Your task to perform on an android device: turn off priority inbox in the gmail app Image 0: 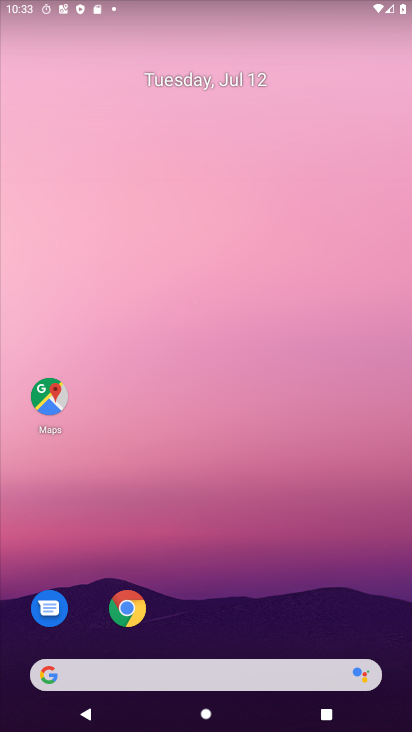
Step 0: drag from (223, 599) to (223, 151)
Your task to perform on an android device: turn off priority inbox in the gmail app Image 1: 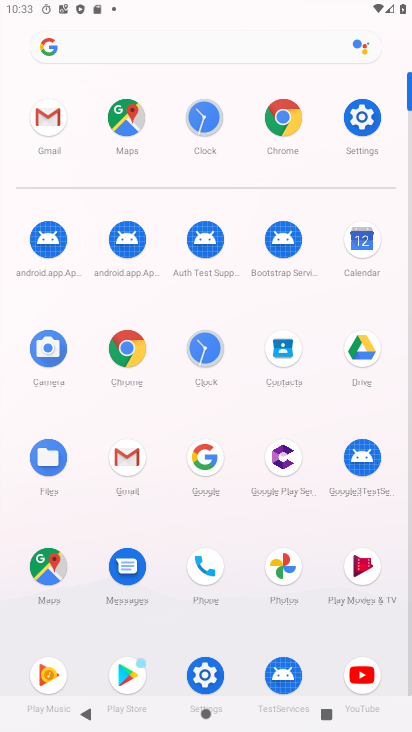
Step 1: click (127, 465)
Your task to perform on an android device: turn off priority inbox in the gmail app Image 2: 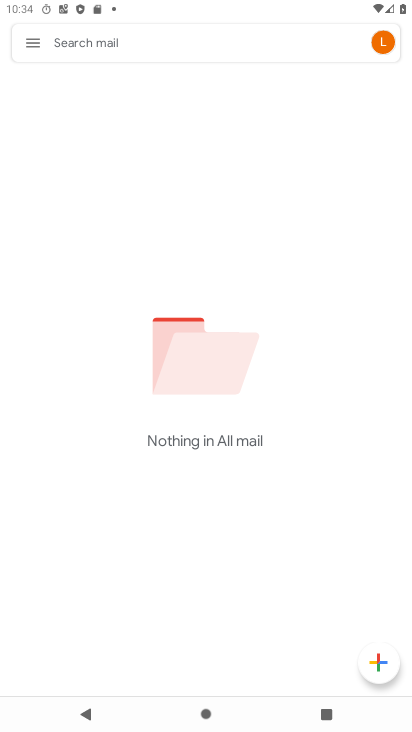
Step 2: click (27, 38)
Your task to perform on an android device: turn off priority inbox in the gmail app Image 3: 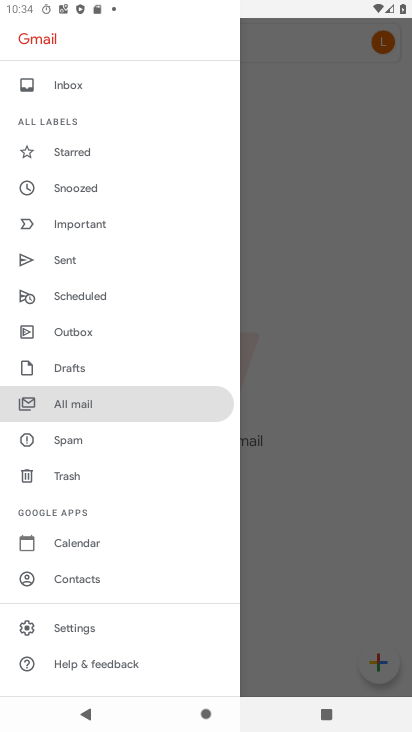
Step 3: click (98, 624)
Your task to perform on an android device: turn off priority inbox in the gmail app Image 4: 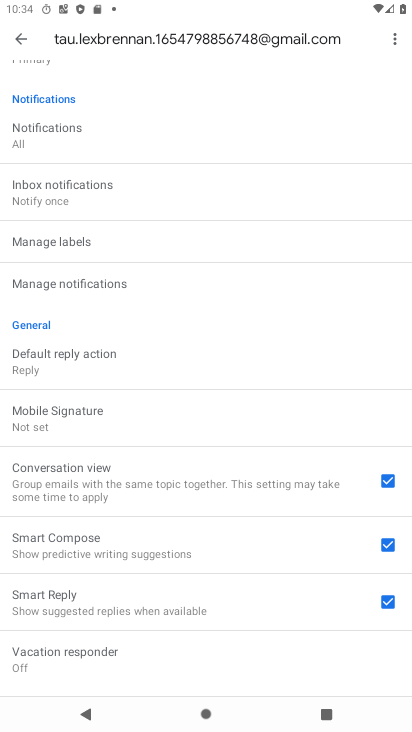
Step 4: drag from (100, 160) to (124, 360)
Your task to perform on an android device: turn off priority inbox in the gmail app Image 5: 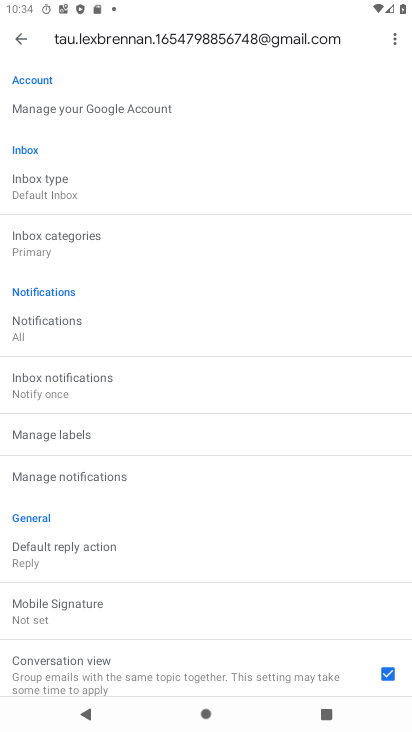
Step 5: click (79, 191)
Your task to perform on an android device: turn off priority inbox in the gmail app Image 6: 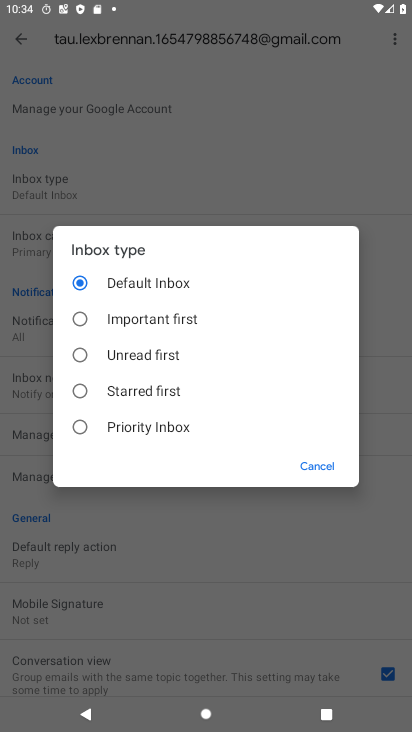
Step 6: click (131, 278)
Your task to perform on an android device: turn off priority inbox in the gmail app Image 7: 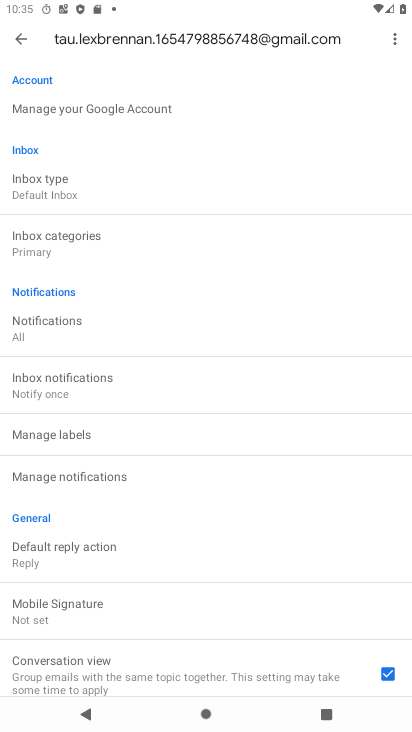
Step 7: task complete